Your task to perform on an android device: manage bookmarks in the chrome app Image 0: 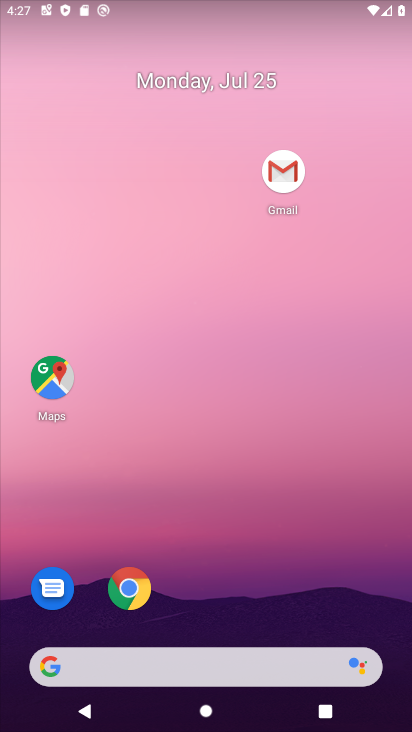
Step 0: drag from (268, 528) to (271, 169)
Your task to perform on an android device: manage bookmarks in the chrome app Image 1: 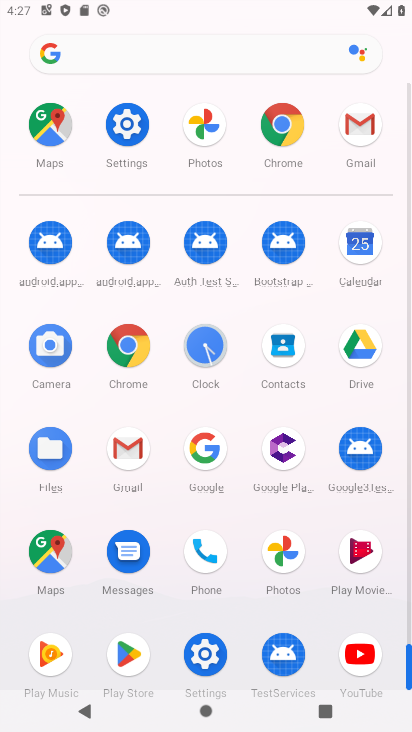
Step 1: click (288, 127)
Your task to perform on an android device: manage bookmarks in the chrome app Image 2: 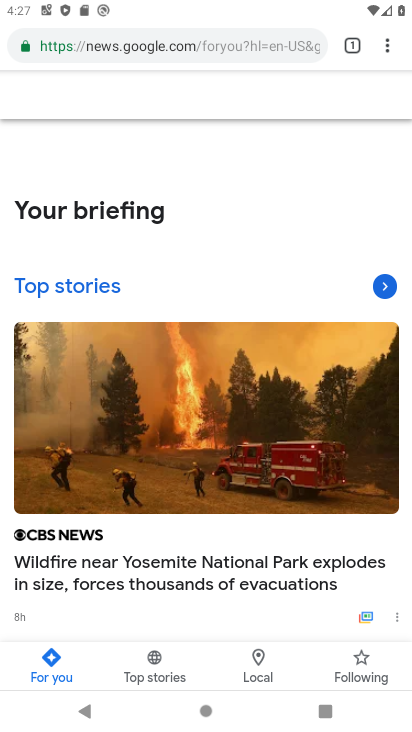
Step 2: drag from (384, 45) to (257, 191)
Your task to perform on an android device: manage bookmarks in the chrome app Image 3: 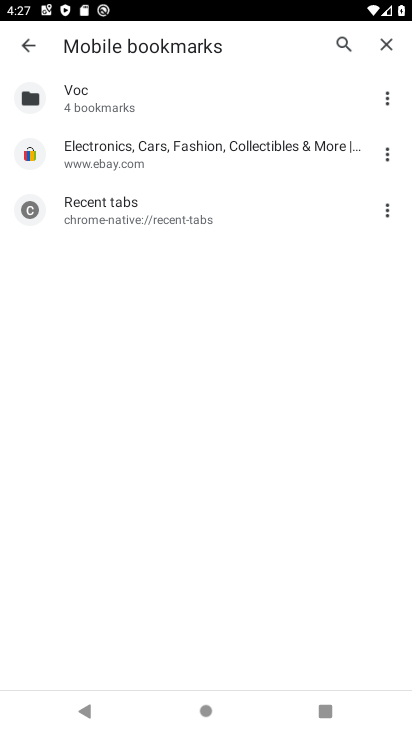
Step 3: click (386, 155)
Your task to perform on an android device: manage bookmarks in the chrome app Image 4: 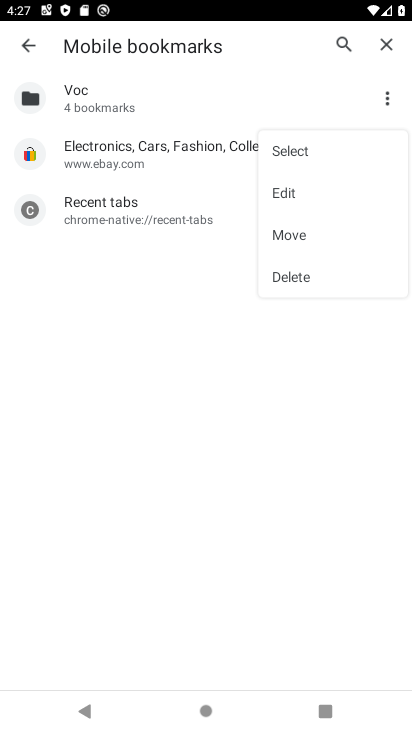
Step 4: click (293, 281)
Your task to perform on an android device: manage bookmarks in the chrome app Image 5: 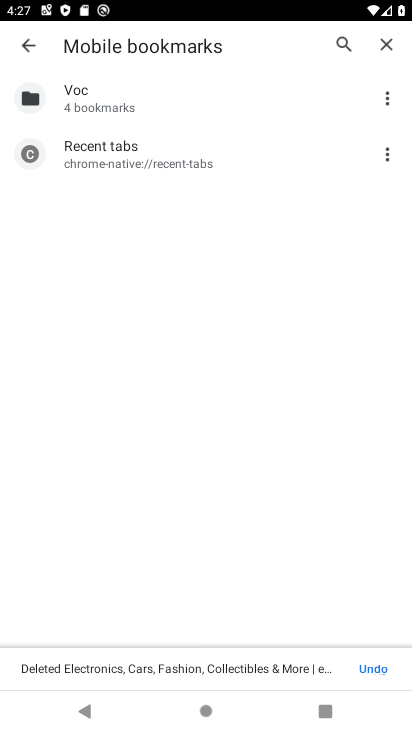
Step 5: task complete